Your task to perform on an android device: open app "Adobe Express: Graphic Design" (install if not already installed), go to login, and select forgot password Image 0: 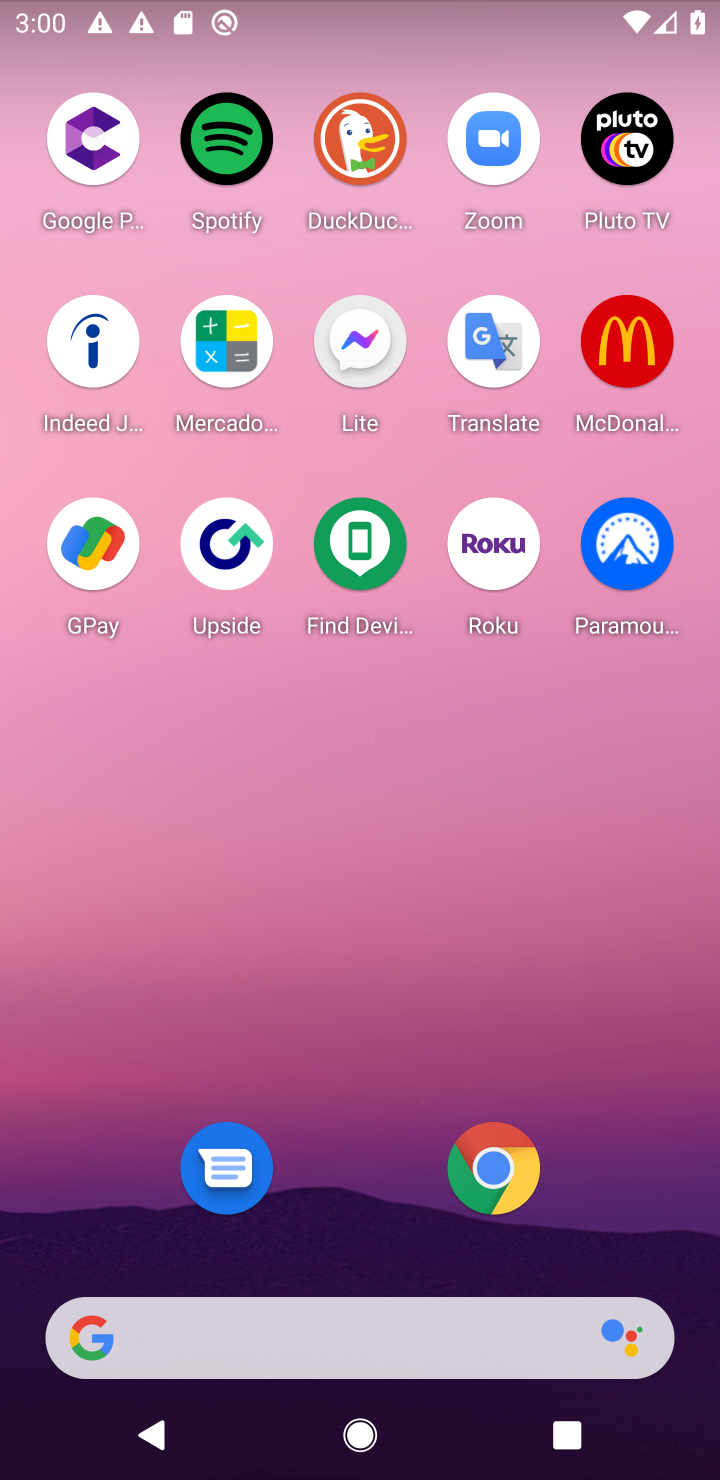
Step 0: drag from (643, 1064) to (614, 159)
Your task to perform on an android device: open app "Adobe Express: Graphic Design" (install if not already installed), go to login, and select forgot password Image 1: 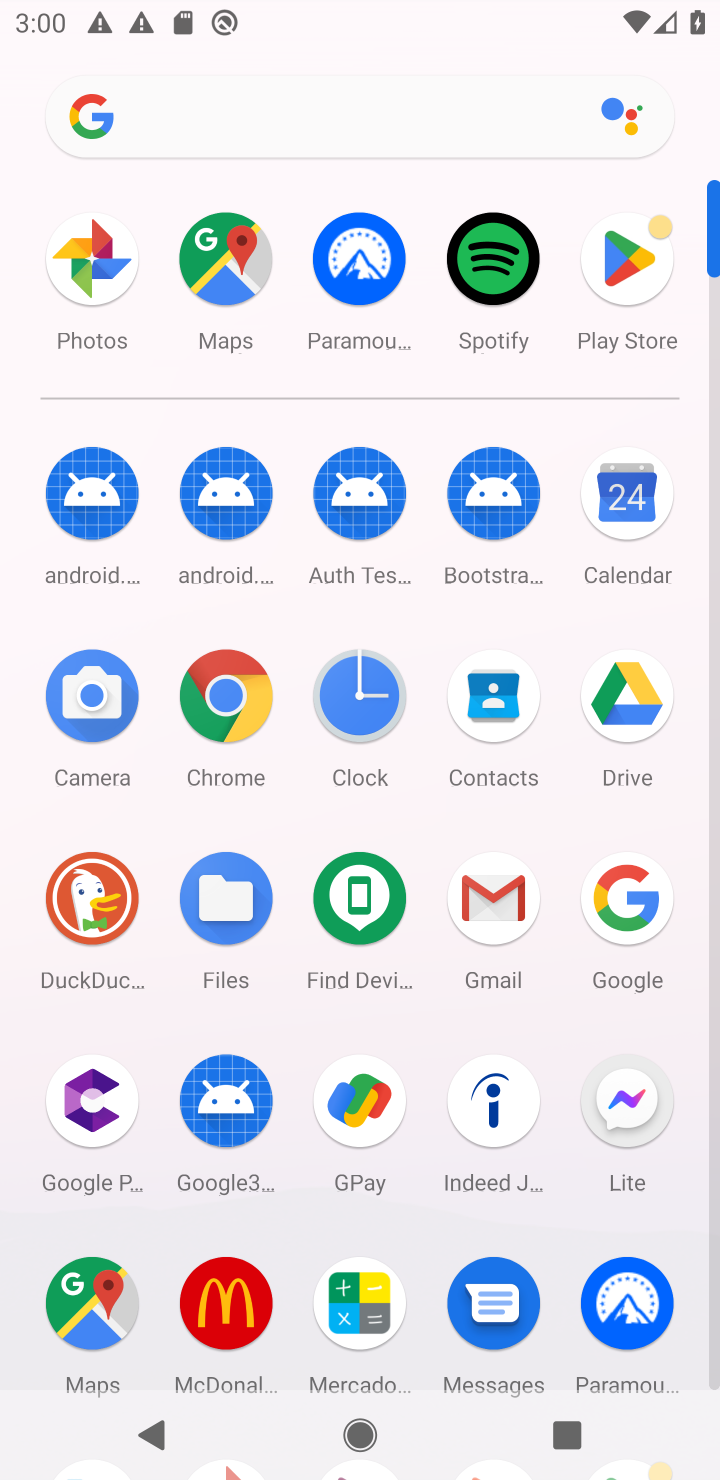
Step 1: click (714, 1293)
Your task to perform on an android device: open app "Adobe Express: Graphic Design" (install if not already installed), go to login, and select forgot password Image 2: 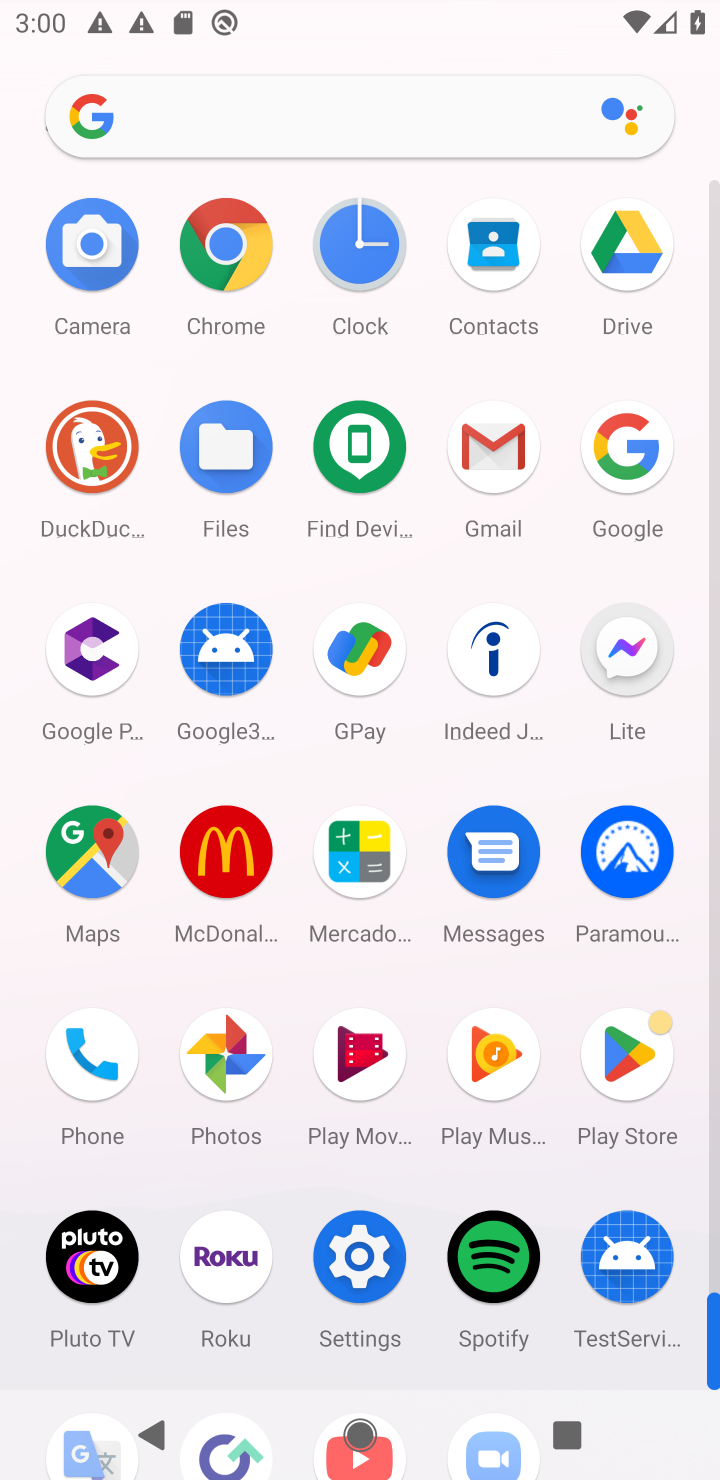
Step 2: click (629, 1054)
Your task to perform on an android device: open app "Adobe Express: Graphic Design" (install if not already installed), go to login, and select forgot password Image 3: 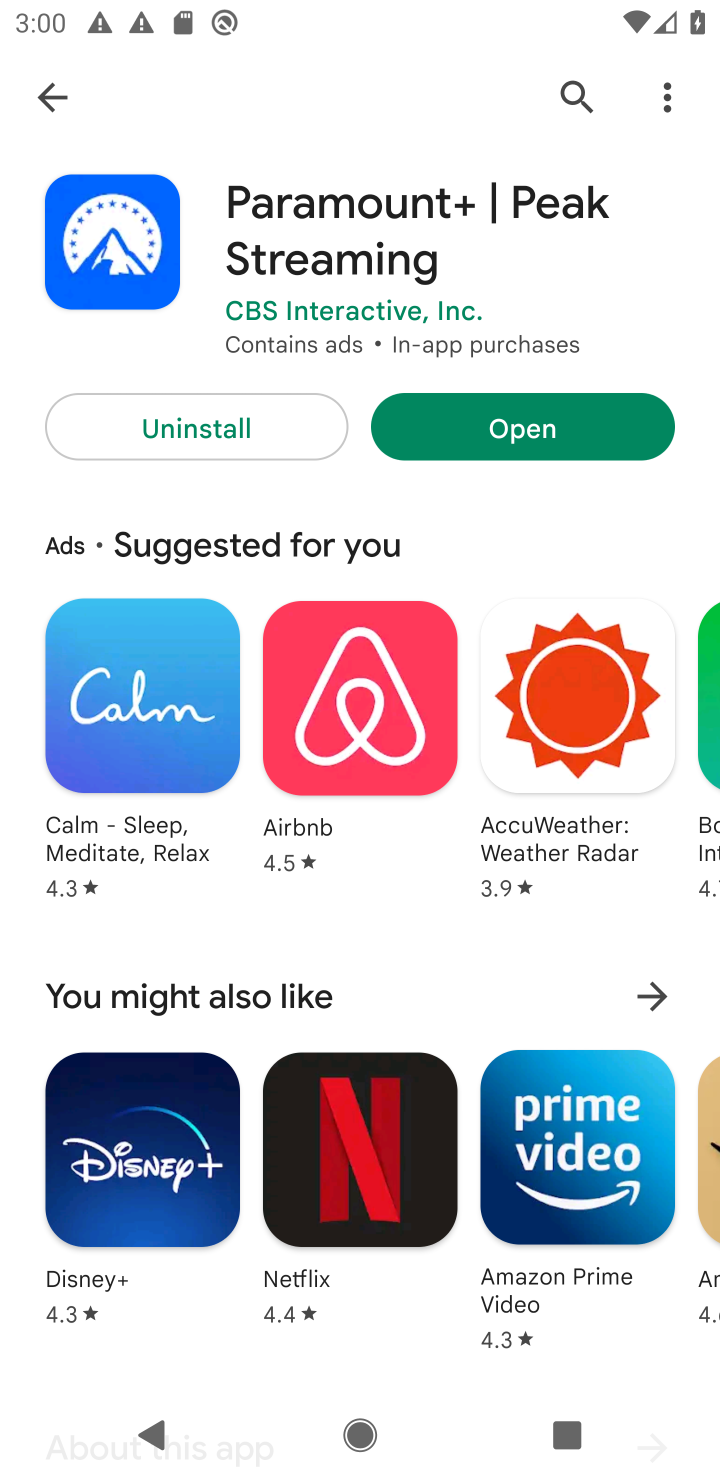
Step 3: click (567, 84)
Your task to perform on an android device: open app "Adobe Express: Graphic Design" (install if not already installed), go to login, and select forgot password Image 4: 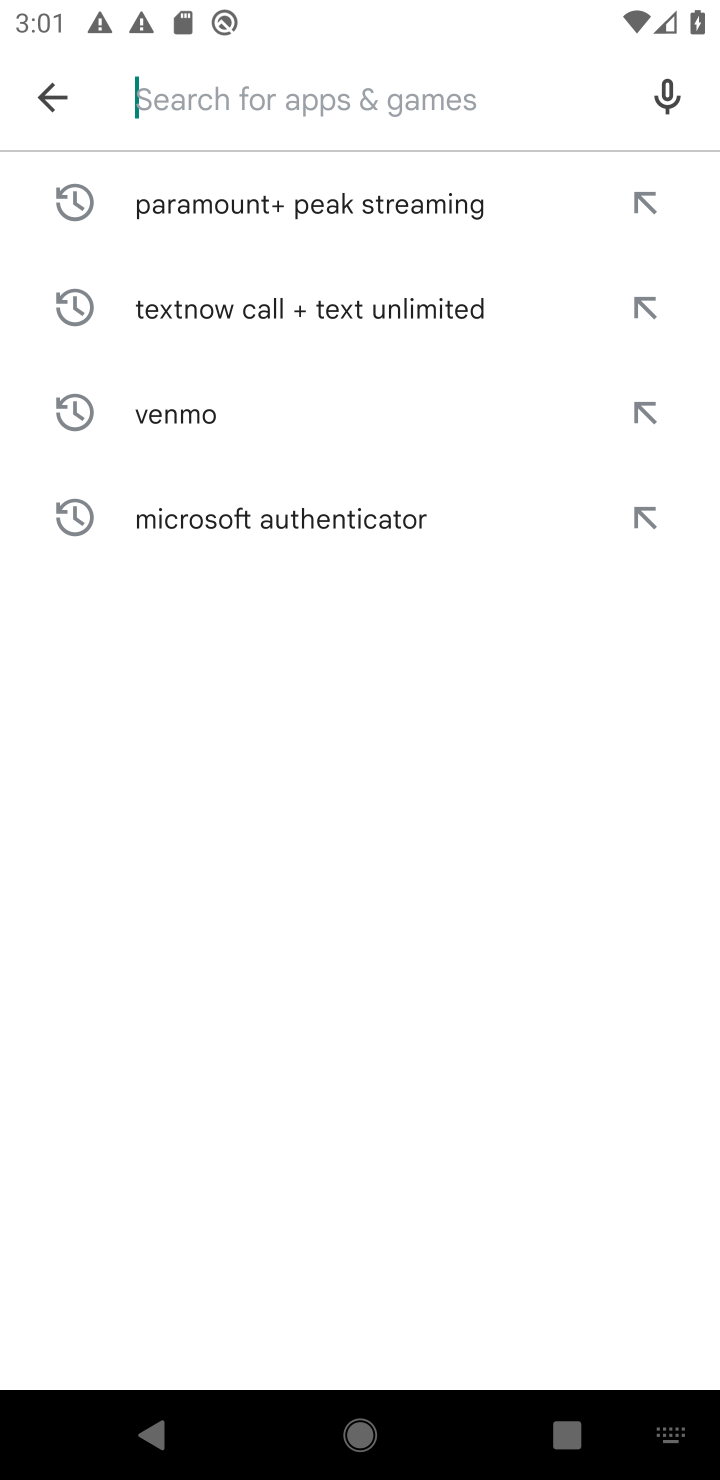
Step 4: type "Adobe Express: Graphic Design"
Your task to perform on an android device: open app "Adobe Express: Graphic Design" (install if not already installed), go to login, and select forgot password Image 5: 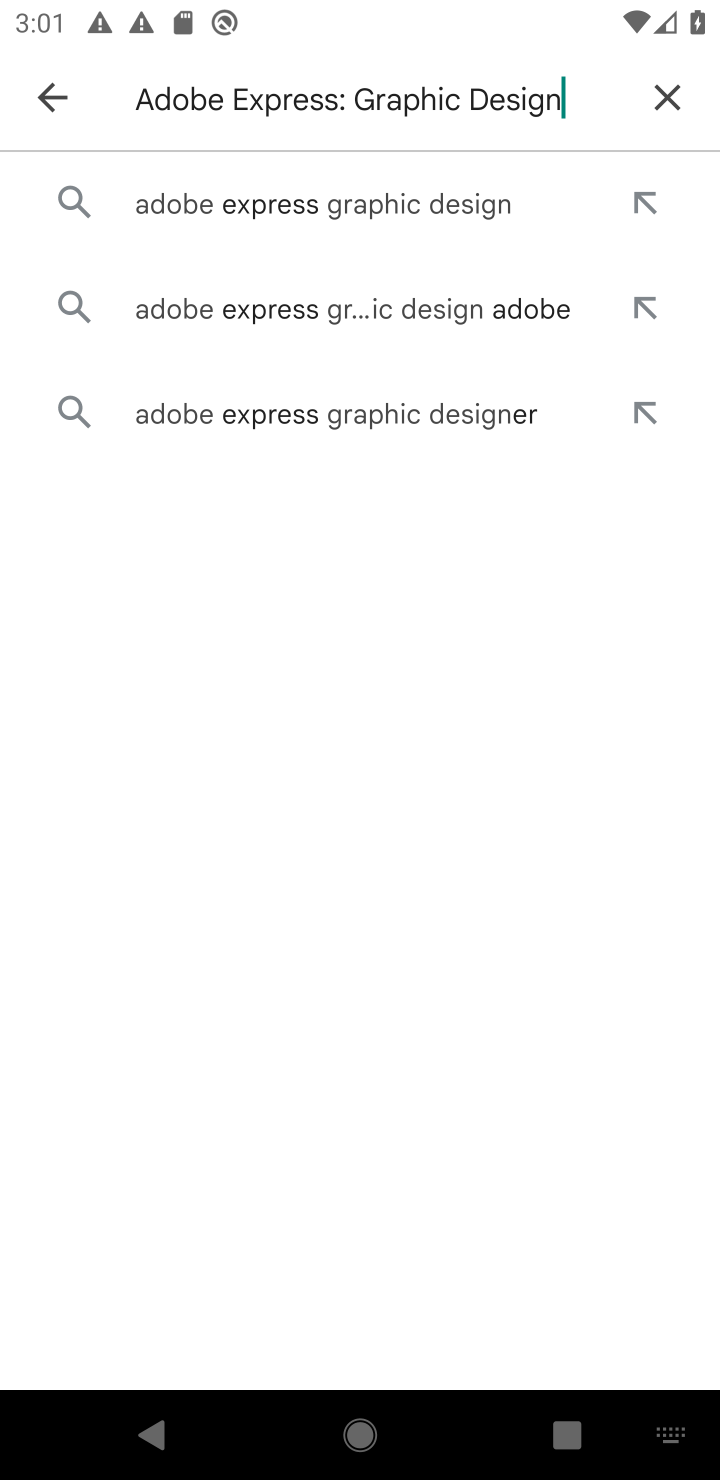
Step 5: click (216, 205)
Your task to perform on an android device: open app "Adobe Express: Graphic Design" (install if not already installed), go to login, and select forgot password Image 6: 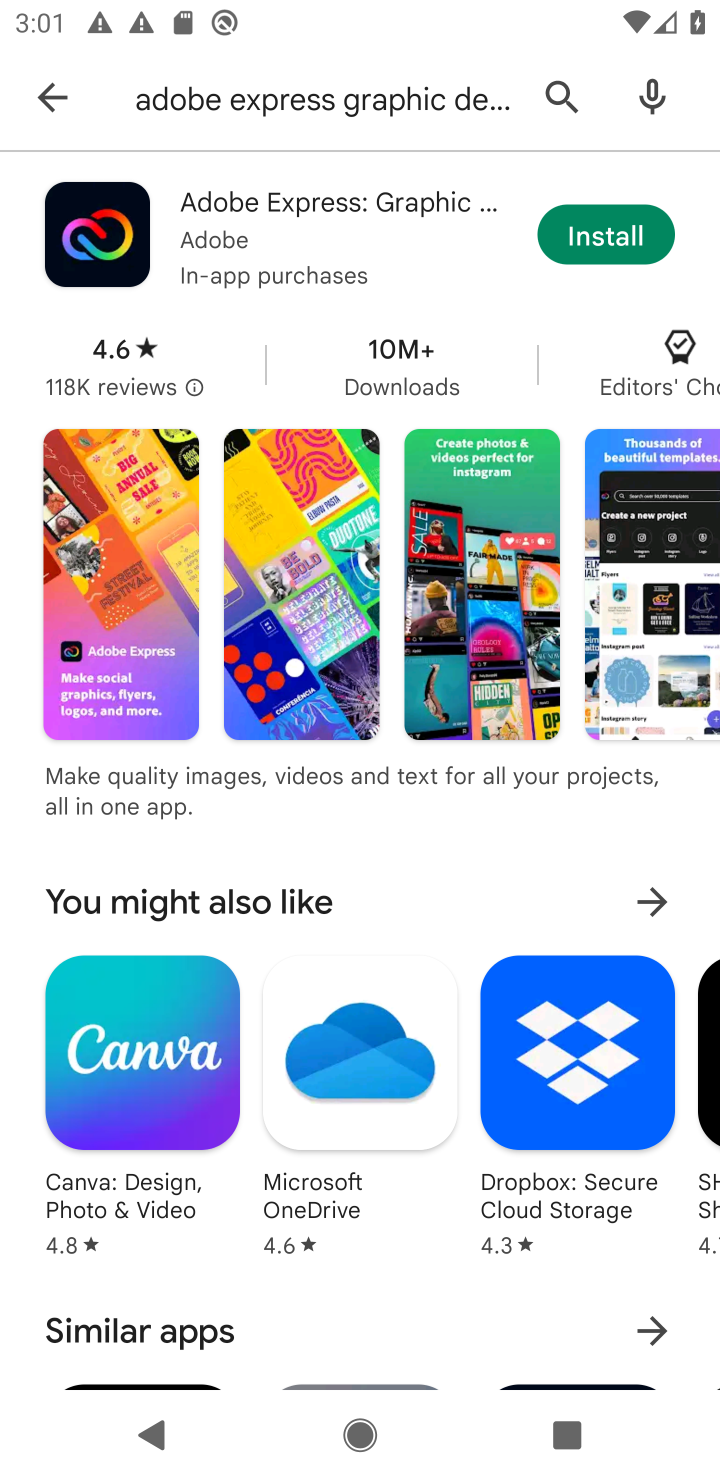
Step 6: click (601, 237)
Your task to perform on an android device: open app "Adobe Express: Graphic Design" (install if not already installed), go to login, and select forgot password Image 7: 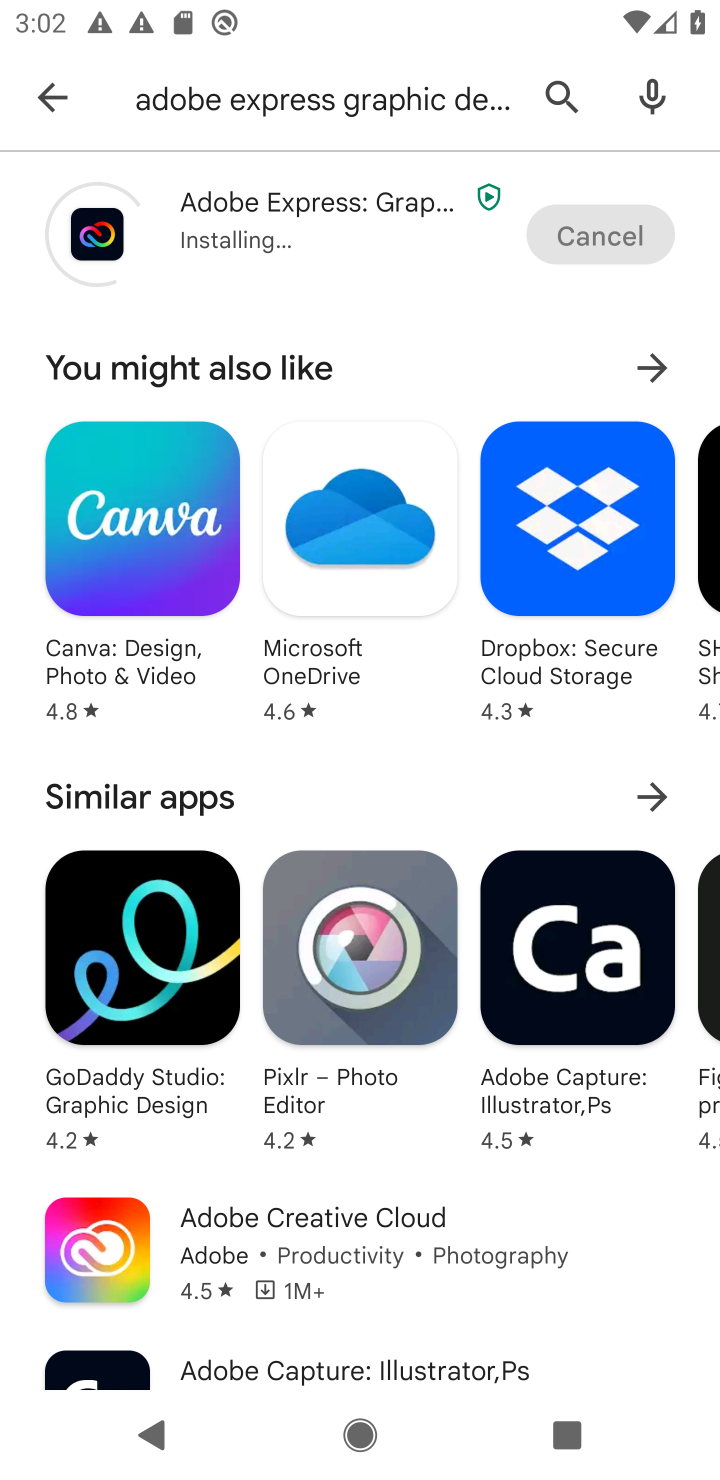
Step 7: click (219, 233)
Your task to perform on an android device: open app "Adobe Express: Graphic Design" (install if not already installed), go to login, and select forgot password Image 8: 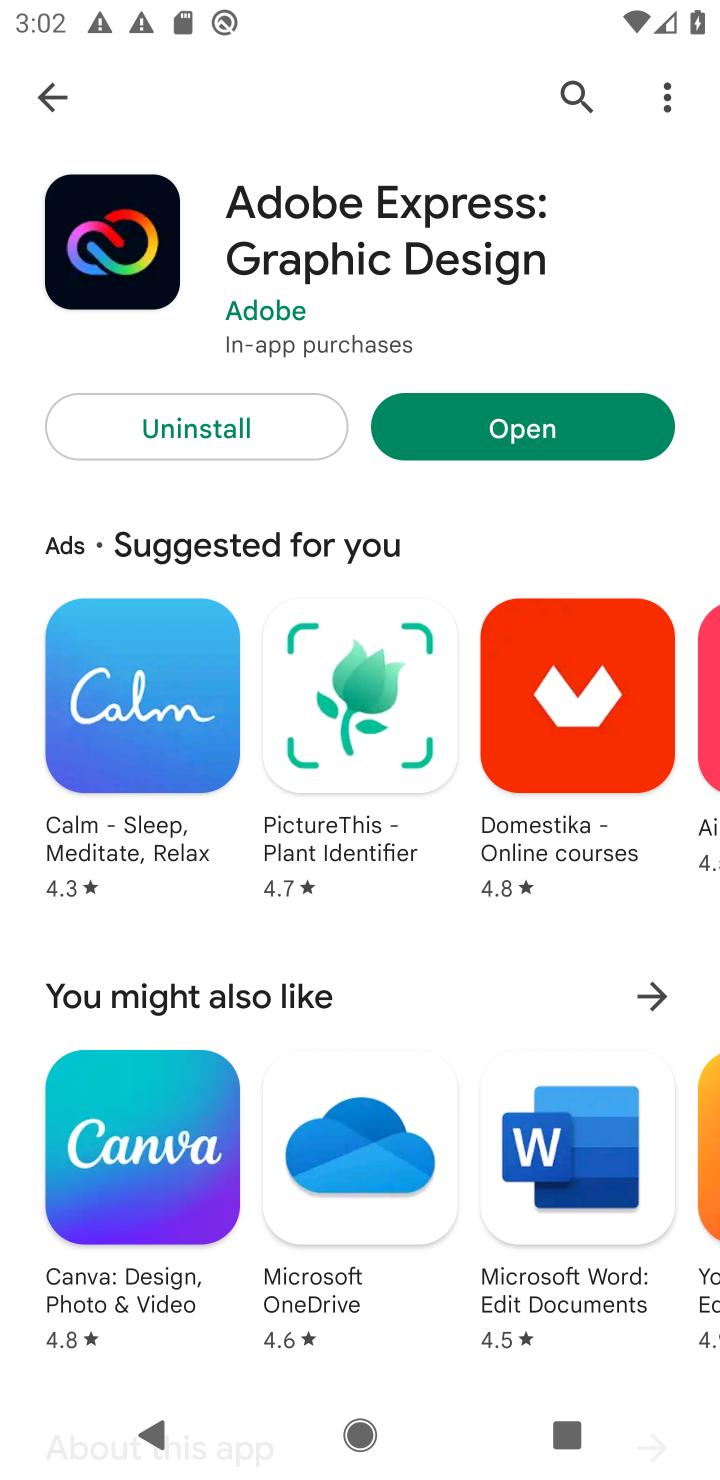
Step 8: click (525, 418)
Your task to perform on an android device: open app "Adobe Express: Graphic Design" (install if not already installed), go to login, and select forgot password Image 9: 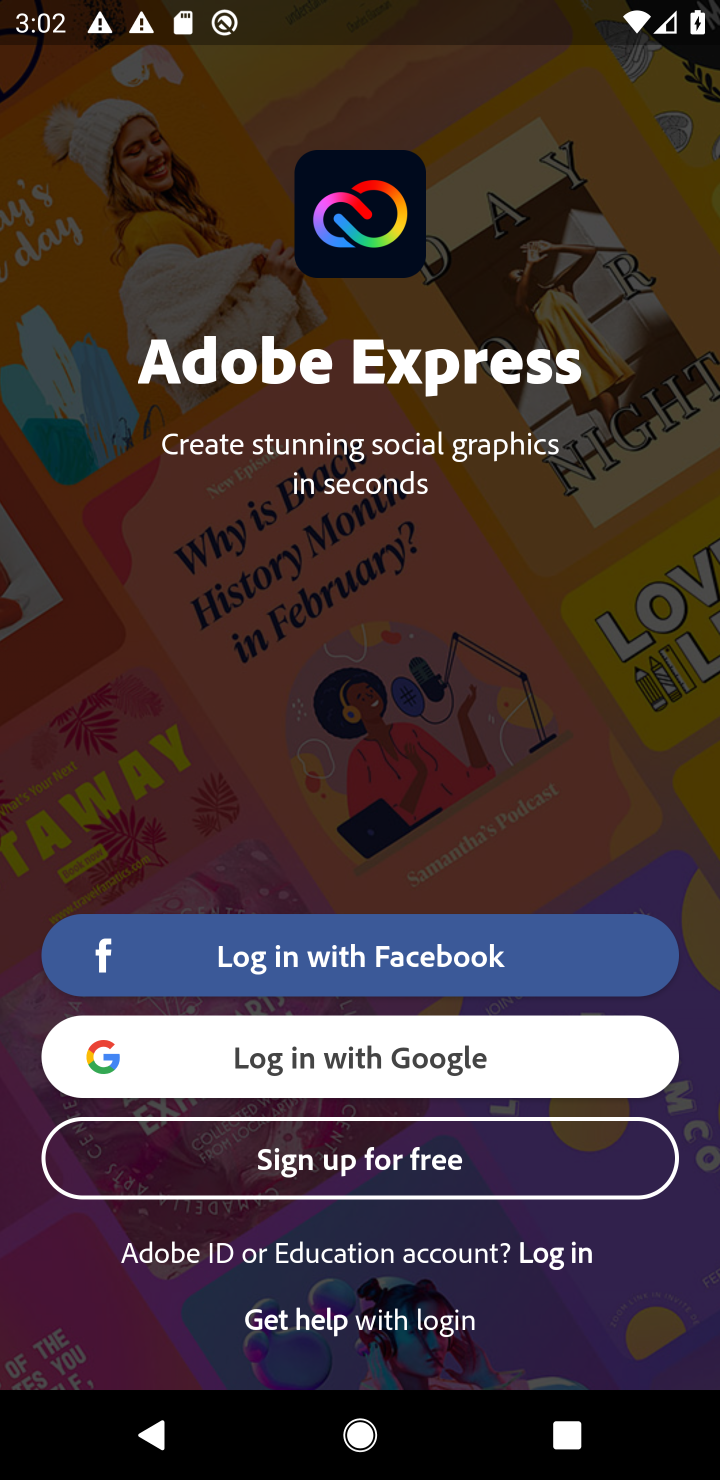
Step 9: click (550, 1247)
Your task to perform on an android device: open app "Adobe Express: Graphic Design" (install if not already installed), go to login, and select forgot password Image 10: 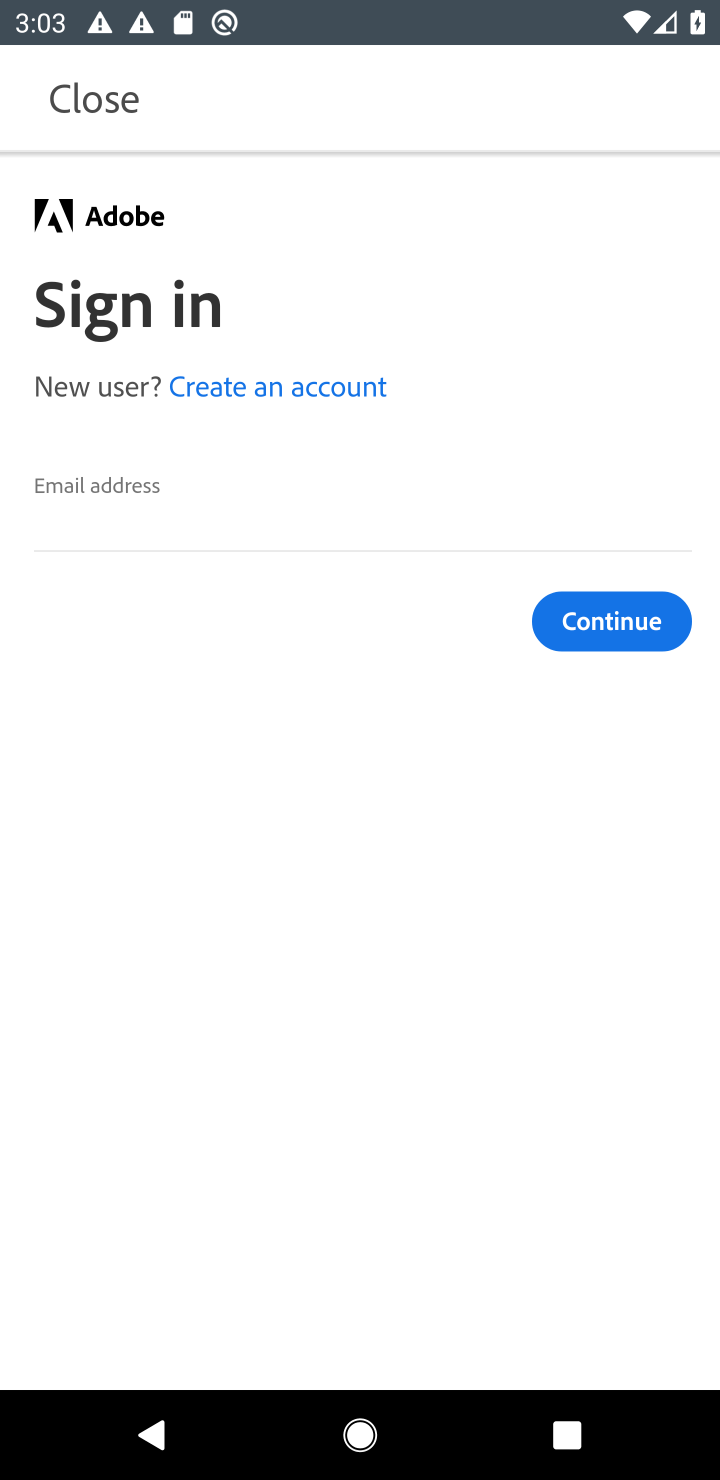
Step 10: task complete